Your task to perform on an android device: Open Google Chrome and open the bookmarks view Image 0: 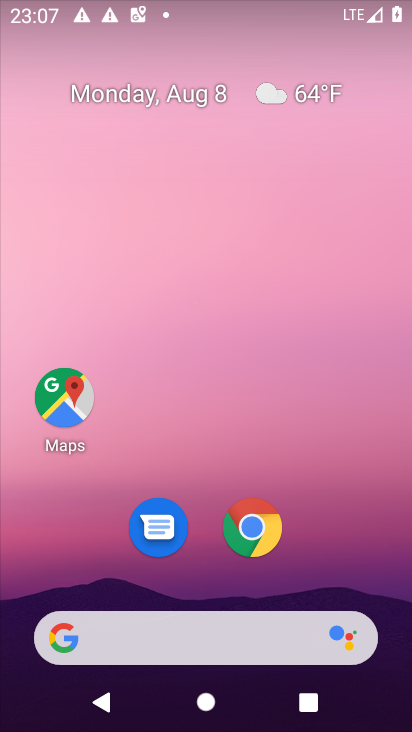
Step 0: click (254, 526)
Your task to perform on an android device: Open Google Chrome and open the bookmarks view Image 1: 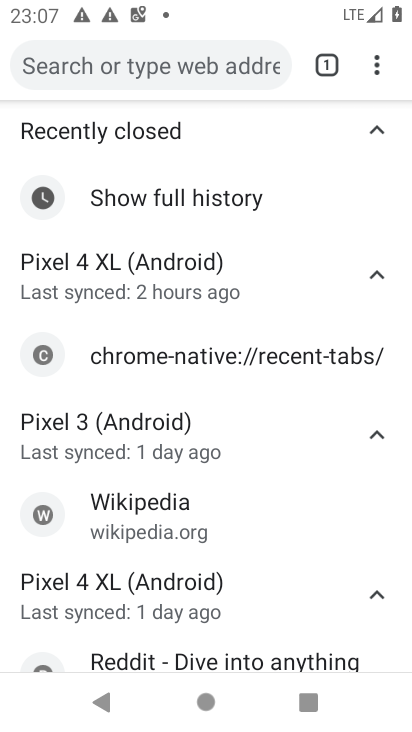
Step 1: click (376, 60)
Your task to perform on an android device: Open Google Chrome and open the bookmarks view Image 2: 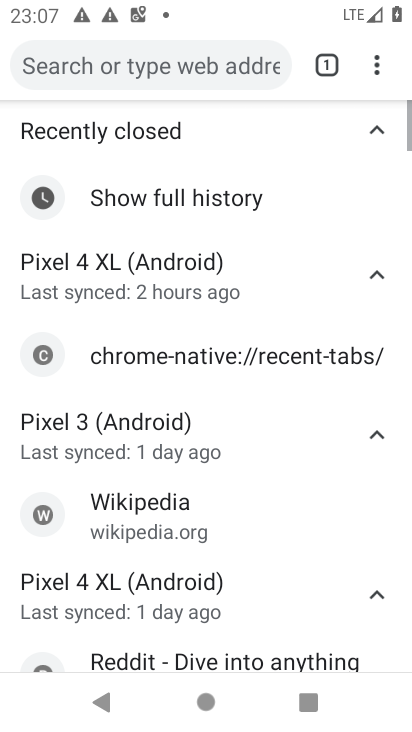
Step 2: click (376, 61)
Your task to perform on an android device: Open Google Chrome and open the bookmarks view Image 3: 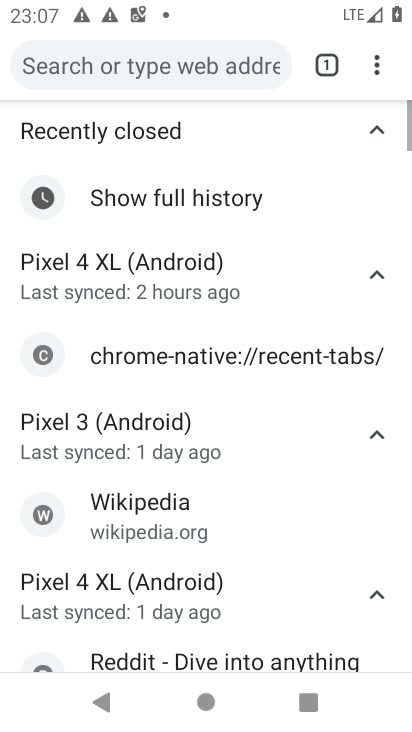
Step 3: click (376, 61)
Your task to perform on an android device: Open Google Chrome and open the bookmarks view Image 4: 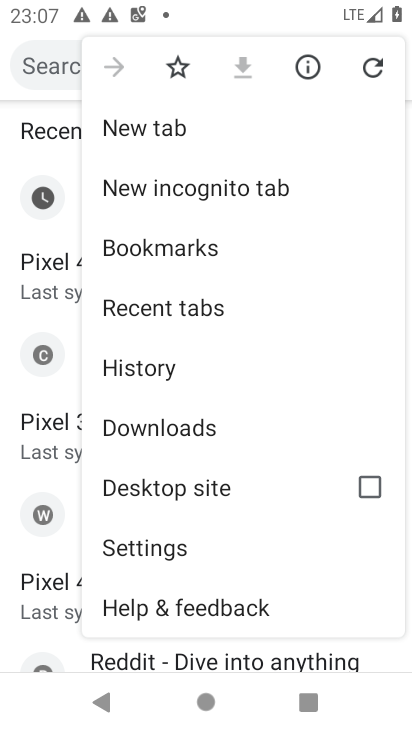
Step 4: click (160, 242)
Your task to perform on an android device: Open Google Chrome and open the bookmarks view Image 5: 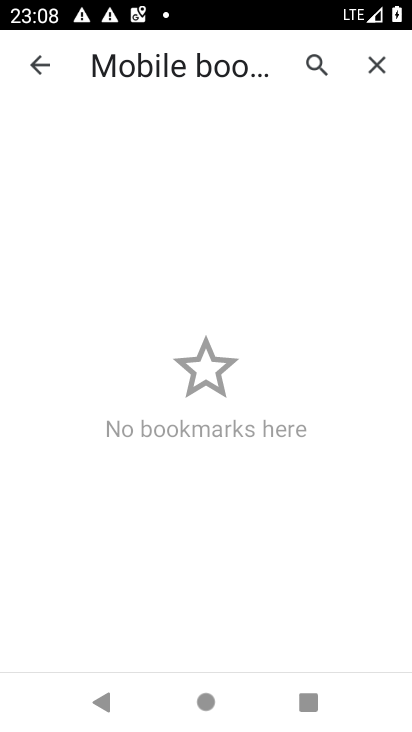
Step 5: task complete